Your task to perform on an android device: add a contact Image 0: 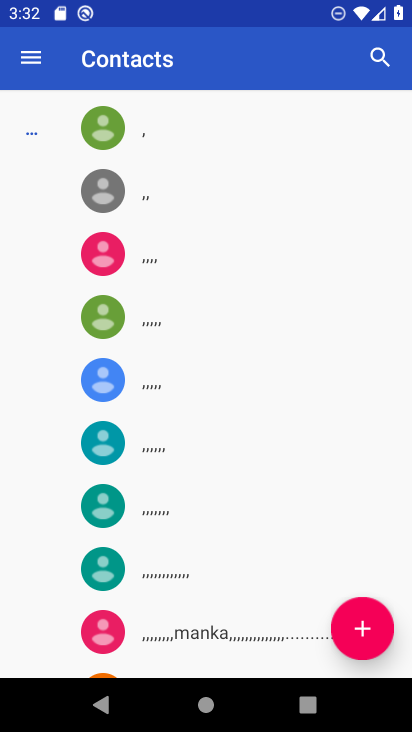
Step 0: press home button
Your task to perform on an android device: add a contact Image 1: 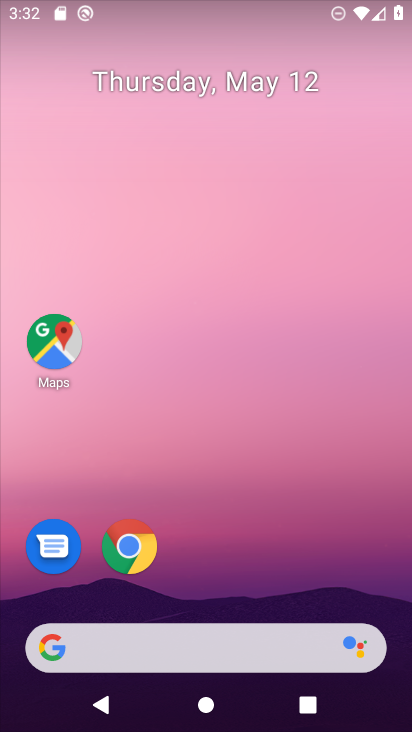
Step 1: drag from (242, 565) to (231, 68)
Your task to perform on an android device: add a contact Image 2: 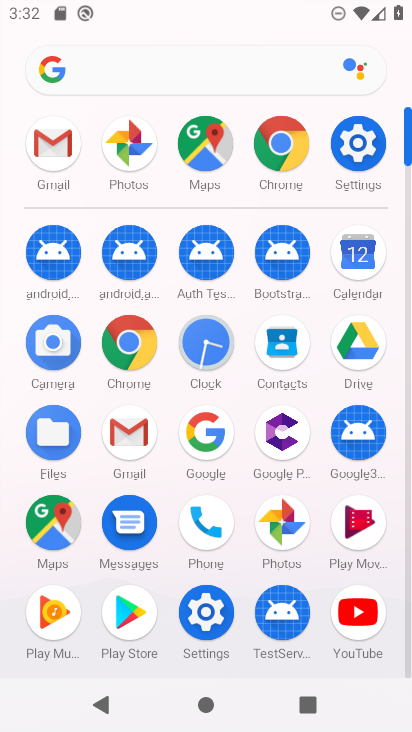
Step 2: click (196, 529)
Your task to perform on an android device: add a contact Image 3: 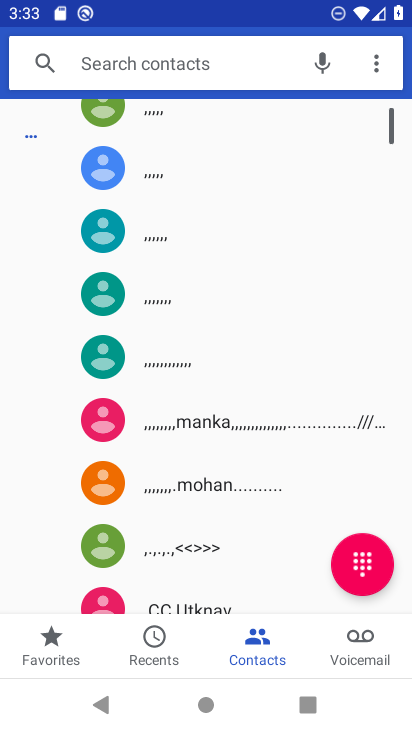
Step 3: drag from (249, 236) to (246, 578)
Your task to perform on an android device: add a contact Image 4: 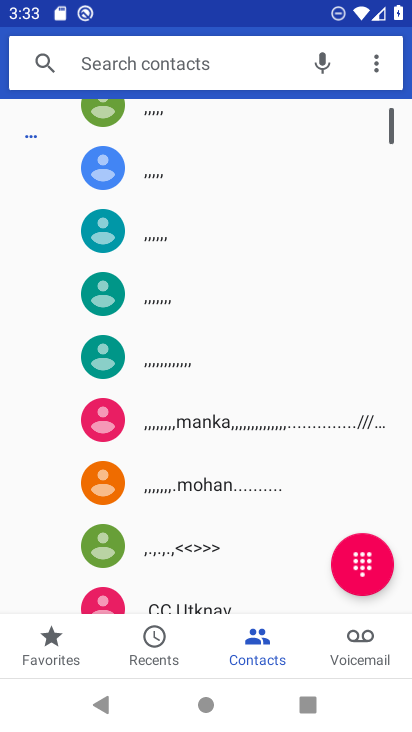
Step 4: drag from (212, 243) to (219, 571)
Your task to perform on an android device: add a contact Image 5: 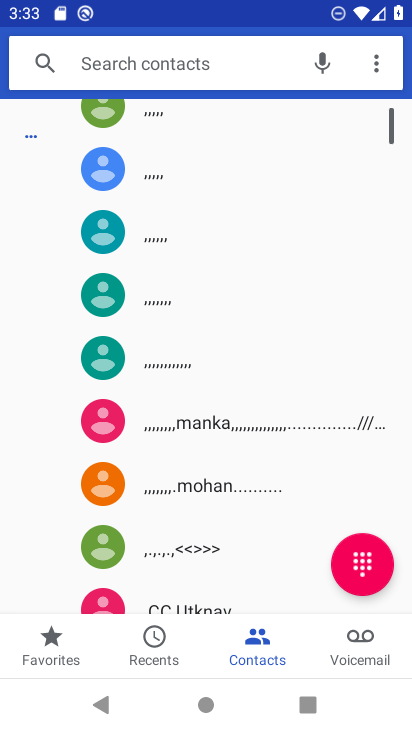
Step 5: drag from (186, 184) to (154, 631)
Your task to perform on an android device: add a contact Image 6: 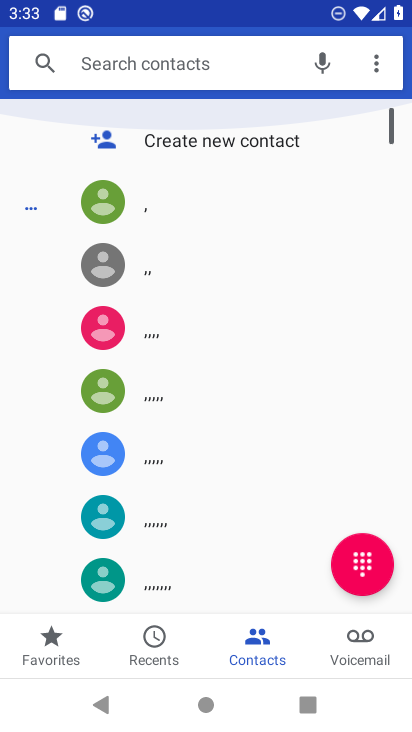
Step 6: drag from (127, 236) to (133, 505)
Your task to perform on an android device: add a contact Image 7: 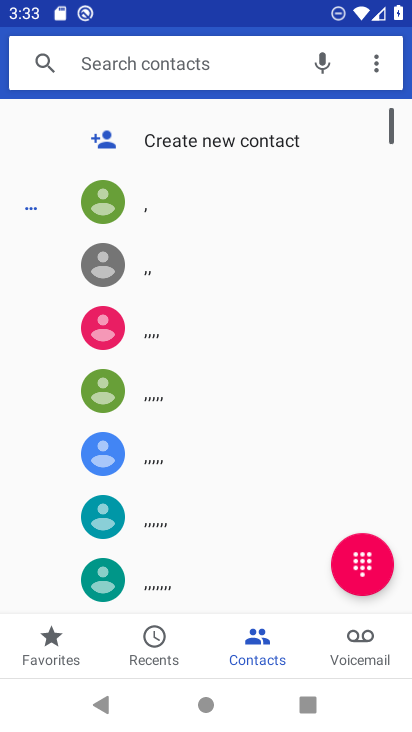
Step 7: click (176, 135)
Your task to perform on an android device: add a contact Image 8: 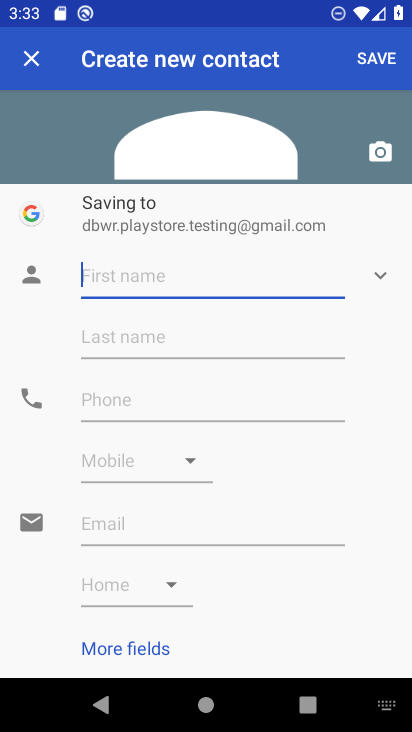
Step 8: click (167, 274)
Your task to perform on an android device: add a contact Image 9: 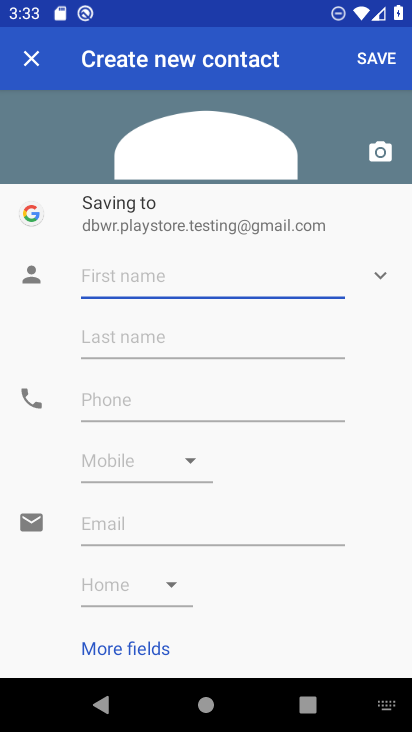
Step 9: type "hghhghghgrrrr"
Your task to perform on an android device: add a contact Image 10: 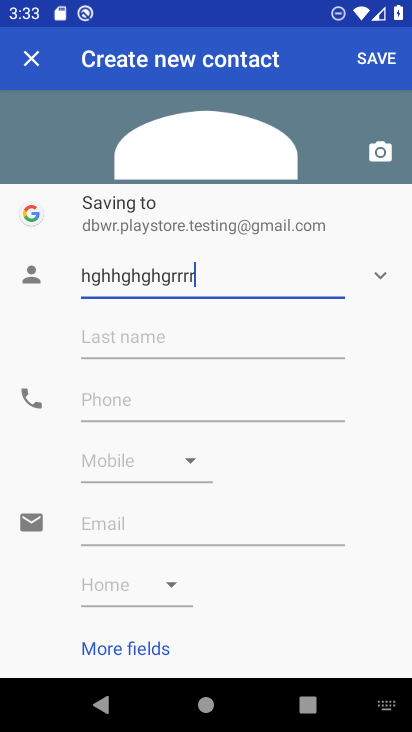
Step 10: click (130, 398)
Your task to perform on an android device: add a contact Image 11: 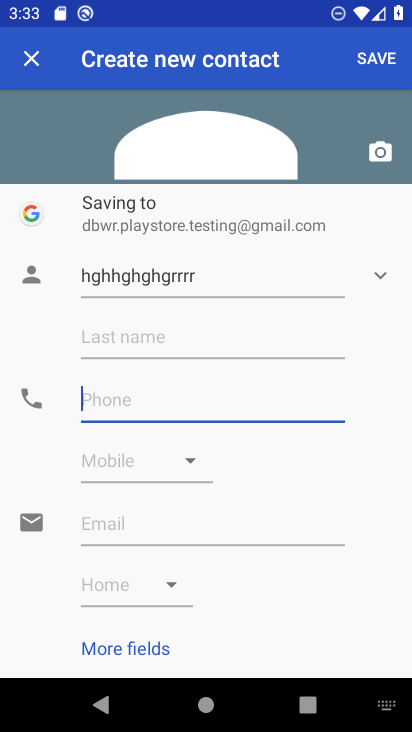
Step 11: type "888888888888888855"
Your task to perform on an android device: add a contact Image 12: 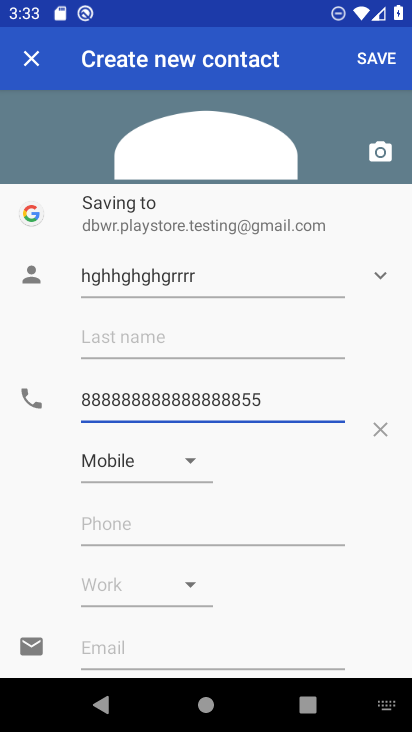
Step 12: click (379, 56)
Your task to perform on an android device: add a contact Image 13: 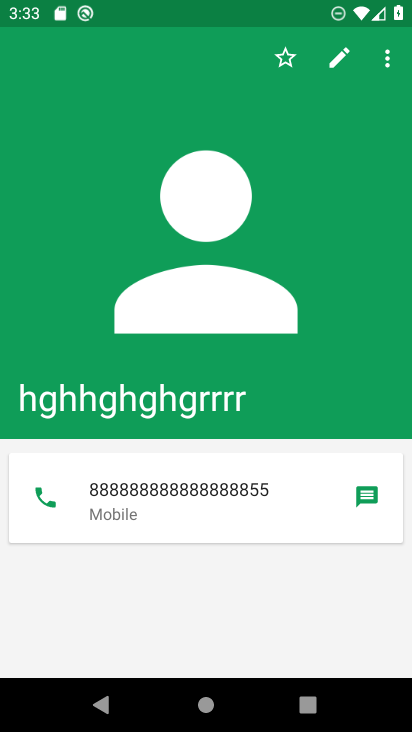
Step 13: task complete